Your task to perform on an android device: move a message to another label in the gmail app Image 0: 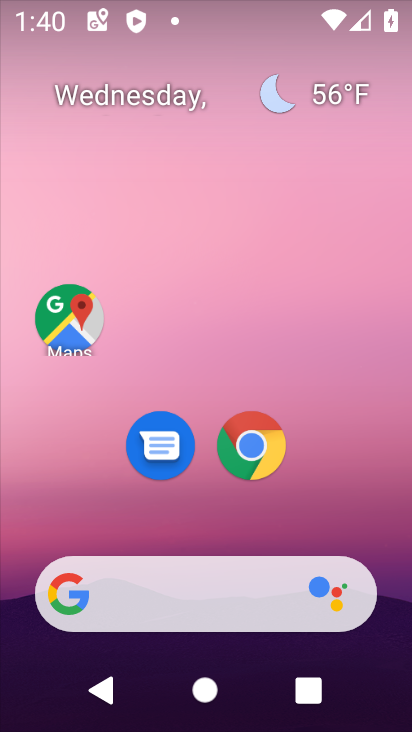
Step 0: drag from (204, 540) to (211, 53)
Your task to perform on an android device: move a message to another label in the gmail app Image 1: 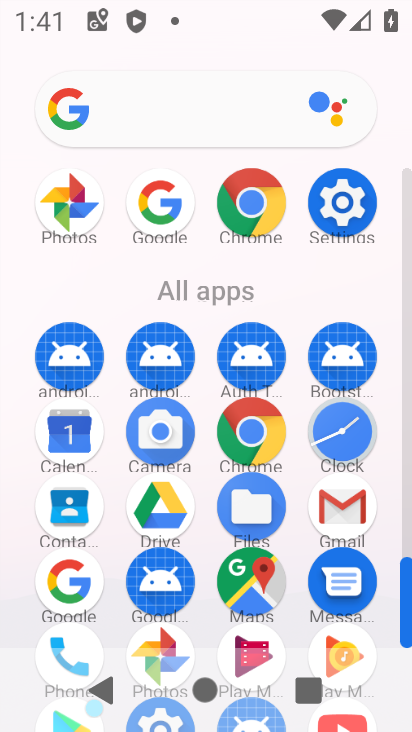
Step 1: click (355, 508)
Your task to perform on an android device: move a message to another label in the gmail app Image 2: 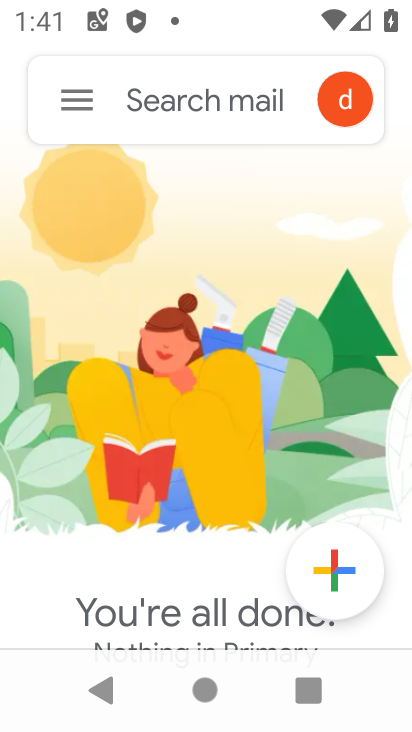
Step 2: click (73, 106)
Your task to perform on an android device: move a message to another label in the gmail app Image 3: 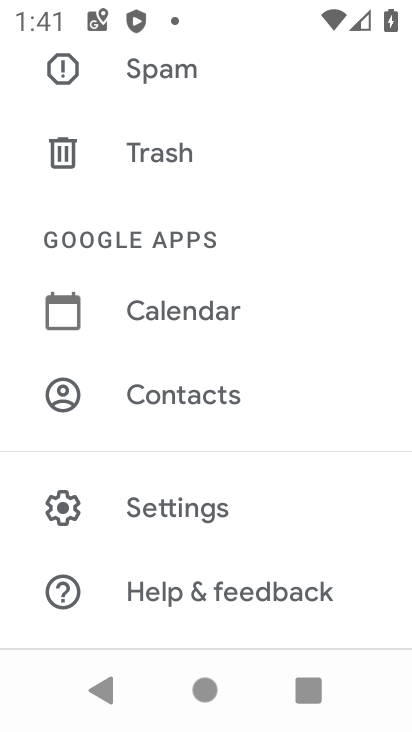
Step 3: drag from (164, 157) to (154, 554)
Your task to perform on an android device: move a message to another label in the gmail app Image 4: 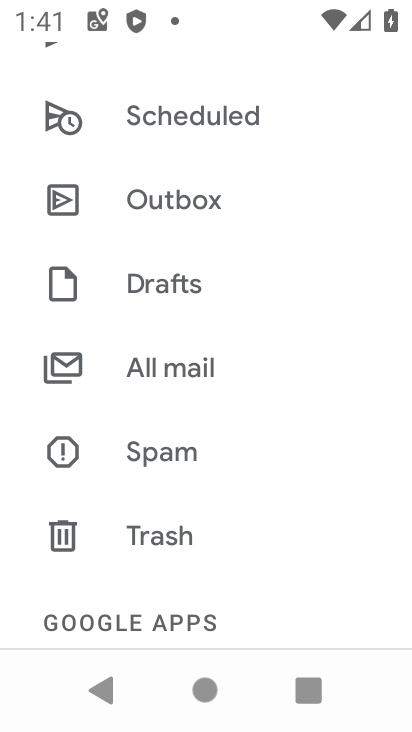
Step 4: click (192, 139)
Your task to perform on an android device: move a message to another label in the gmail app Image 5: 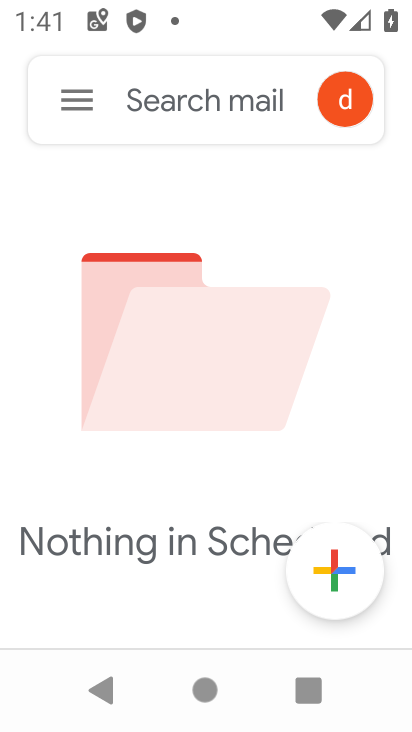
Step 5: task complete